Your task to perform on an android device: toggle javascript in the chrome app Image 0: 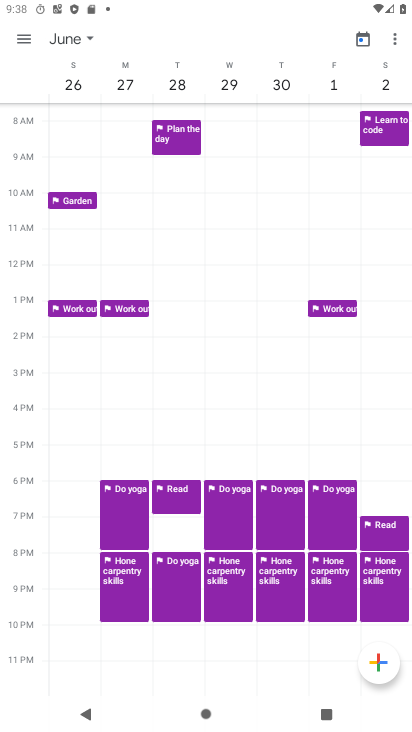
Step 0: press home button
Your task to perform on an android device: toggle javascript in the chrome app Image 1: 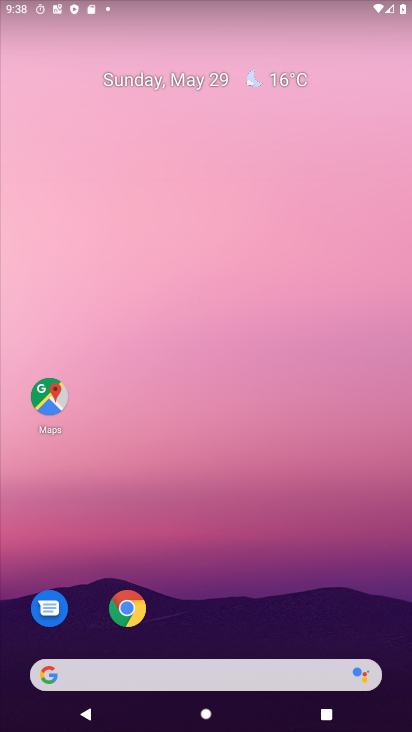
Step 1: click (124, 607)
Your task to perform on an android device: toggle javascript in the chrome app Image 2: 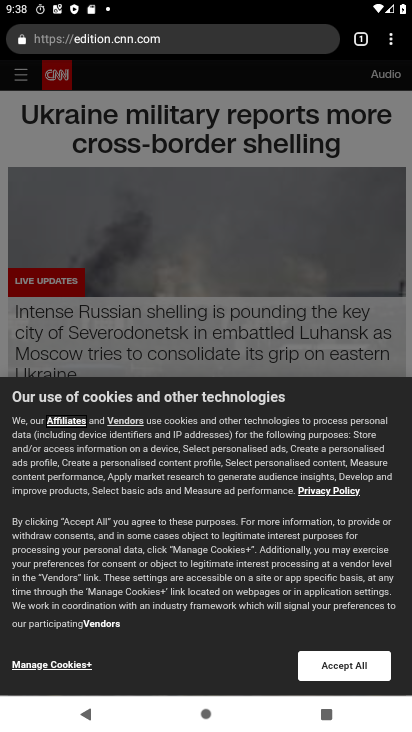
Step 2: click (387, 37)
Your task to perform on an android device: toggle javascript in the chrome app Image 3: 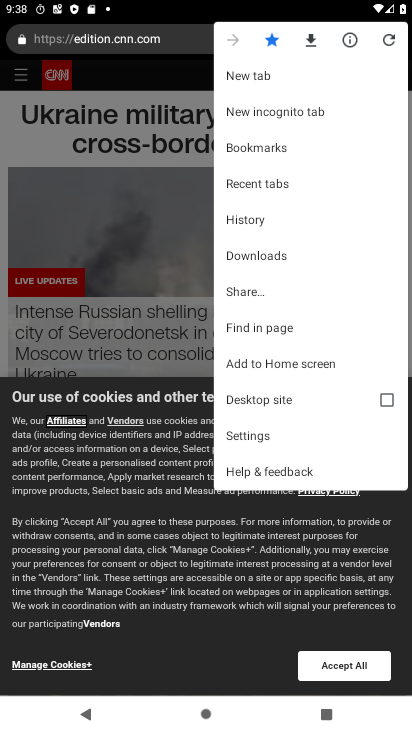
Step 3: click (249, 440)
Your task to perform on an android device: toggle javascript in the chrome app Image 4: 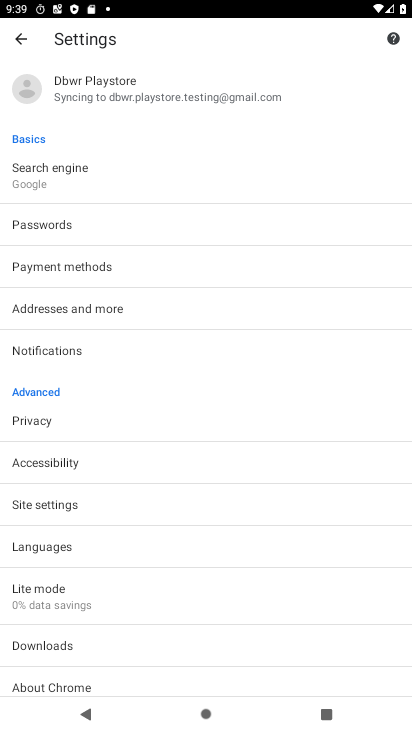
Step 4: click (59, 506)
Your task to perform on an android device: toggle javascript in the chrome app Image 5: 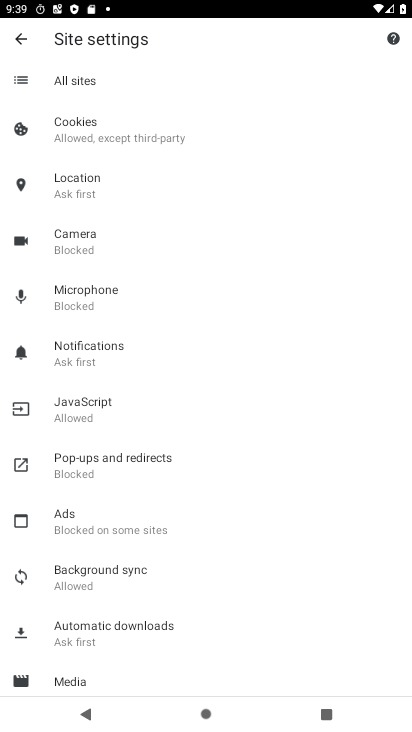
Step 5: click (78, 417)
Your task to perform on an android device: toggle javascript in the chrome app Image 6: 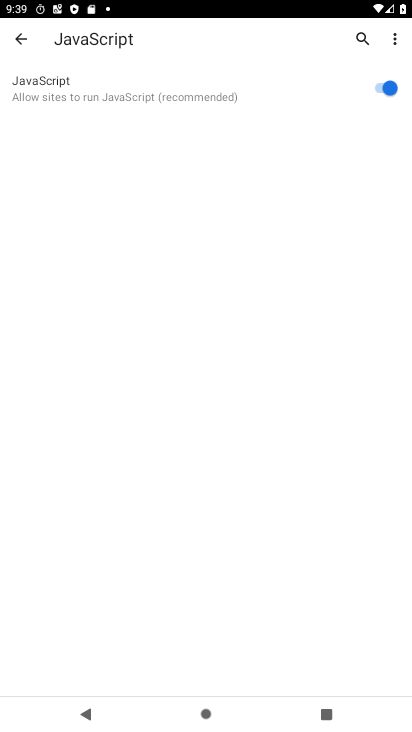
Step 6: click (381, 92)
Your task to perform on an android device: toggle javascript in the chrome app Image 7: 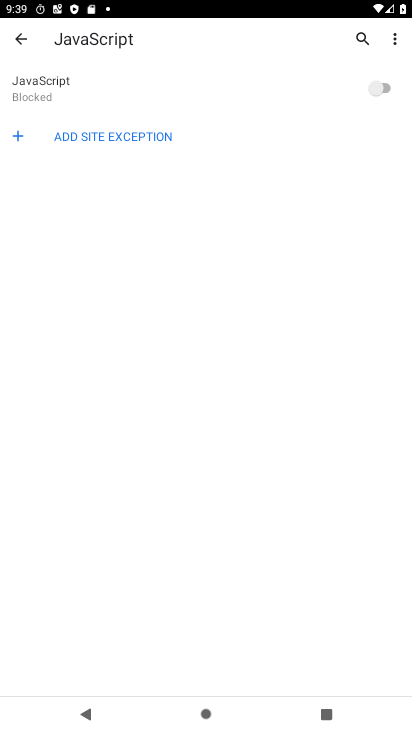
Step 7: task complete